Your task to perform on an android device: open a bookmark in the chrome app Image 0: 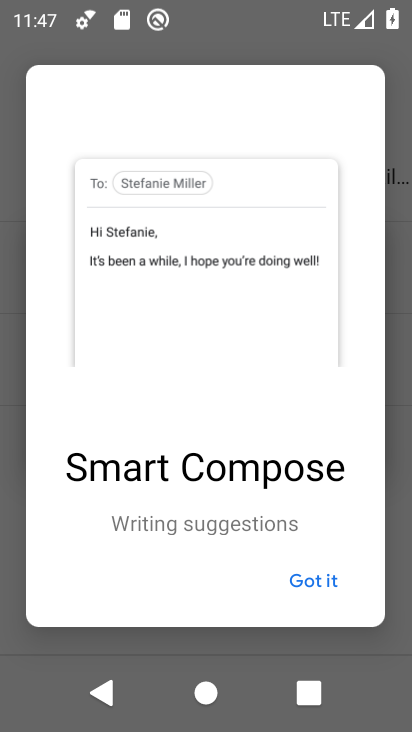
Step 0: press home button
Your task to perform on an android device: open a bookmark in the chrome app Image 1: 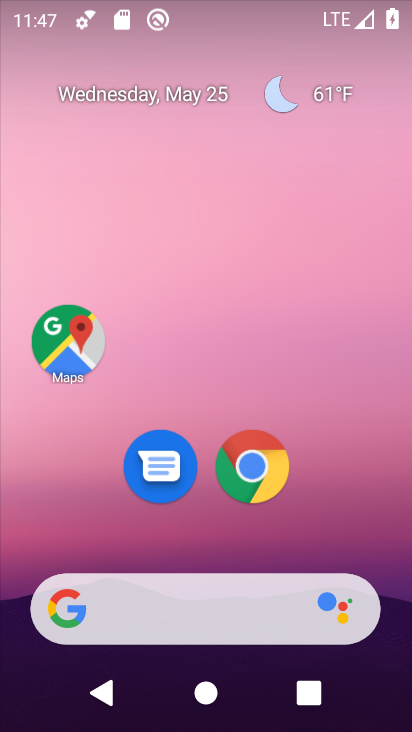
Step 1: click (240, 460)
Your task to perform on an android device: open a bookmark in the chrome app Image 2: 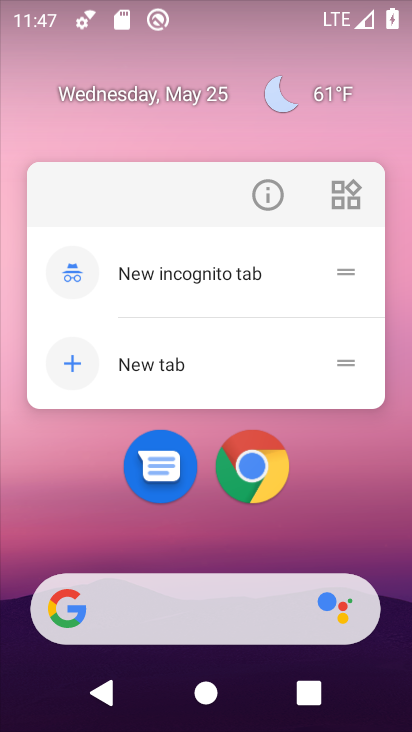
Step 2: click (240, 459)
Your task to perform on an android device: open a bookmark in the chrome app Image 3: 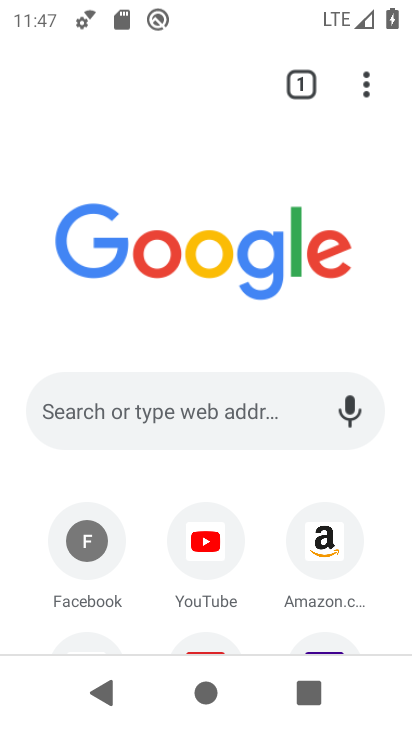
Step 3: click (367, 98)
Your task to perform on an android device: open a bookmark in the chrome app Image 4: 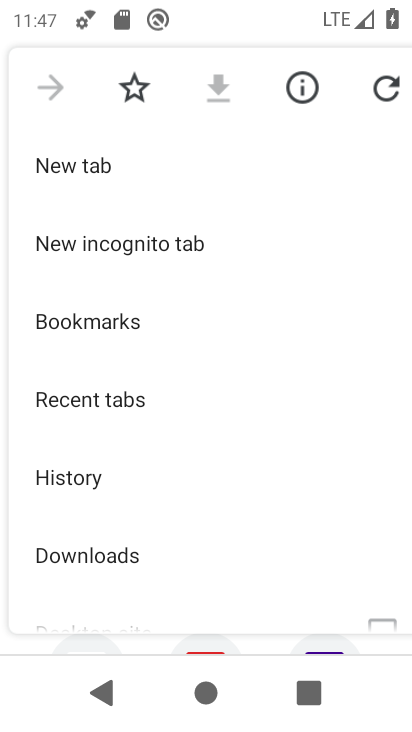
Step 4: drag from (173, 515) to (176, 252)
Your task to perform on an android device: open a bookmark in the chrome app Image 5: 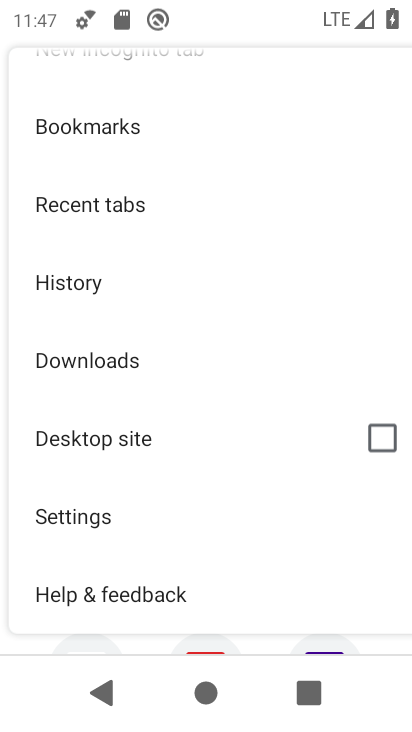
Step 5: click (83, 511)
Your task to perform on an android device: open a bookmark in the chrome app Image 6: 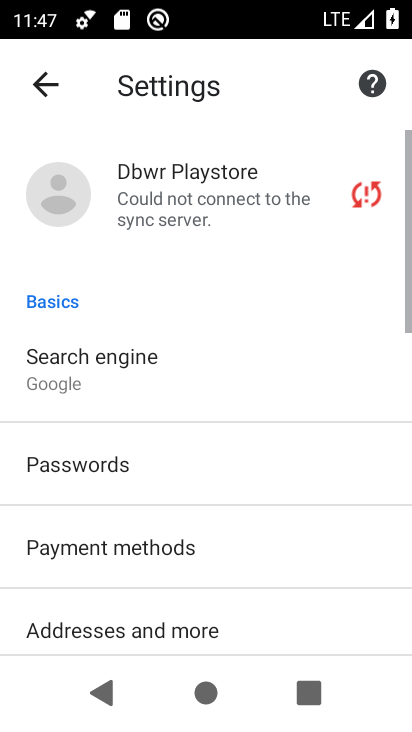
Step 6: click (45, 78)
Your task to perform on an android device: open a bookmark in the chrome app Image 7: 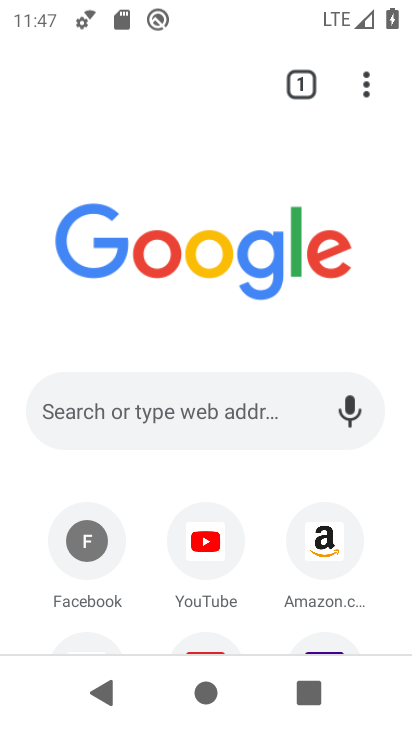
Step 7: click (361, 89)
Your task to perform on an android device: open a bookmark in the chrome app Image 8: 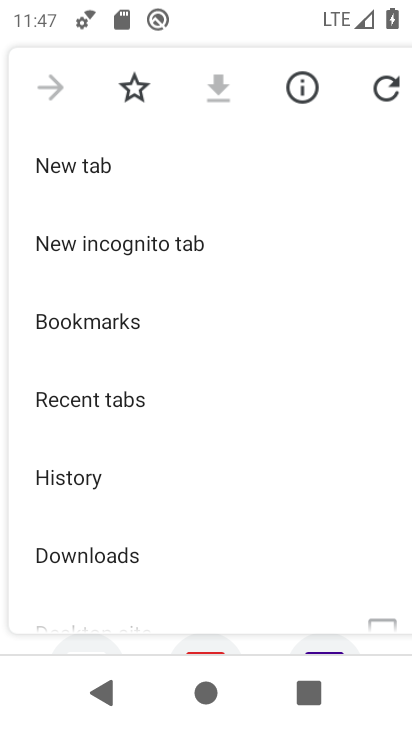
Step 8: click (136, 321)
Your task to perform on an android device: open a bookmark in the chrome app Image 9: 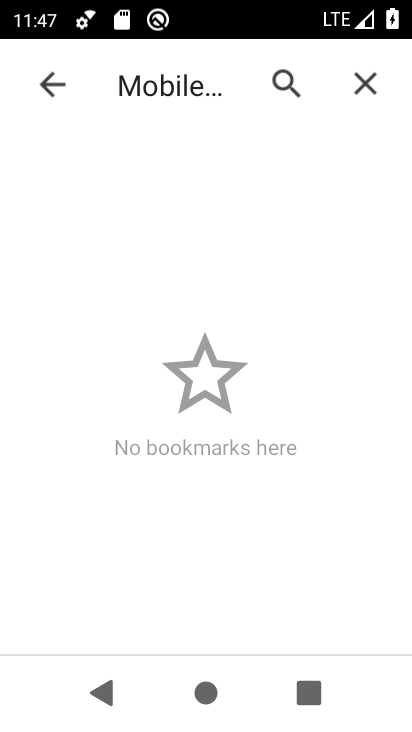
Step 9: task complete